Your task to perform on an android device: see creations saved in the google photos Image 0: 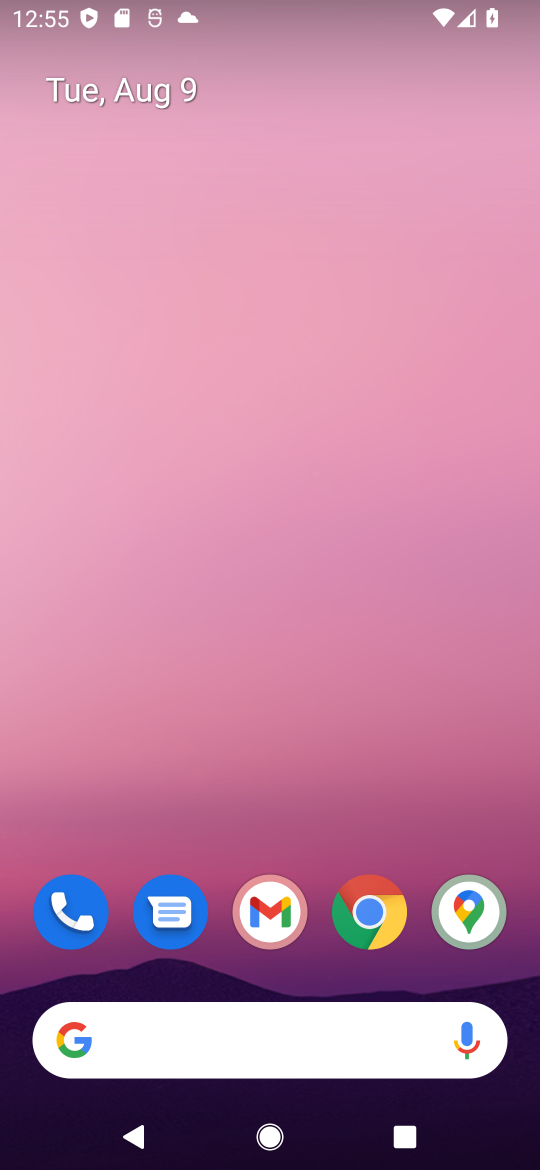
Step 0: drag from (277, 1010) to (229, 164)
Your task to perform on an android device: see creations saved in the google photos Image 1: 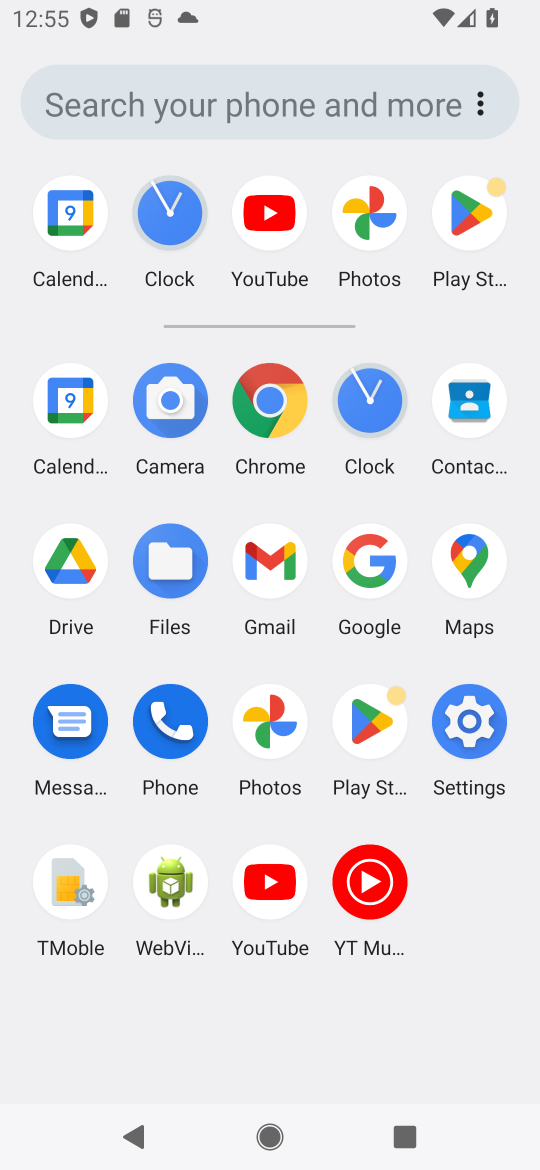
Step 1: click (272, 724)
Your task to perform on an android device: see creations saved in the google photos Image 2: 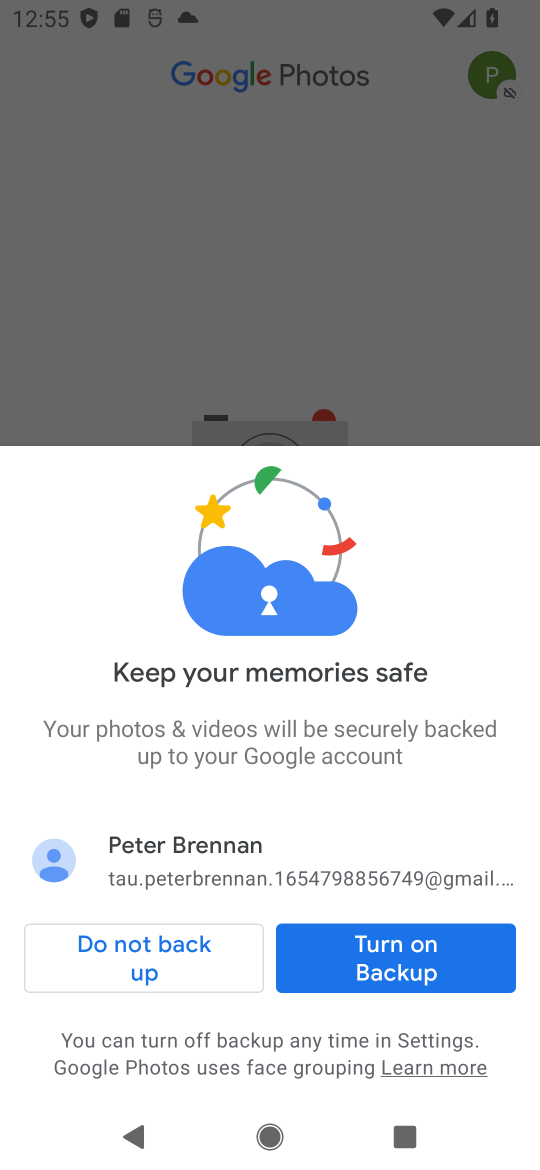
Step 2: click (340, 962)
Your task to perform on an android device: see creations saved in the google photos Image 3: 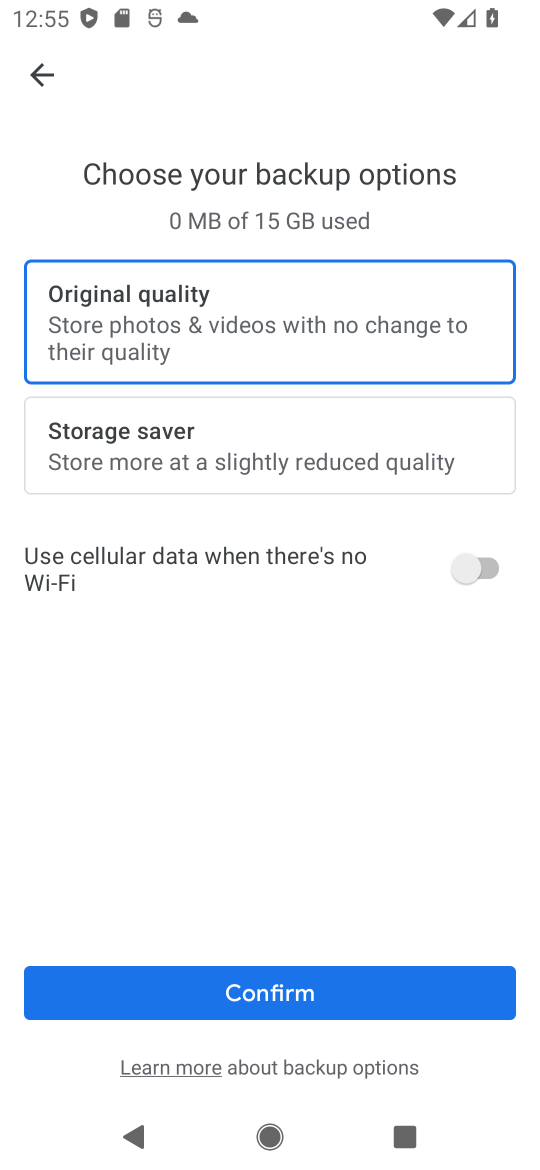
Step 3: click (257, 993)
Your task to perform on an android device: see creations saved in the google photos Image 4: 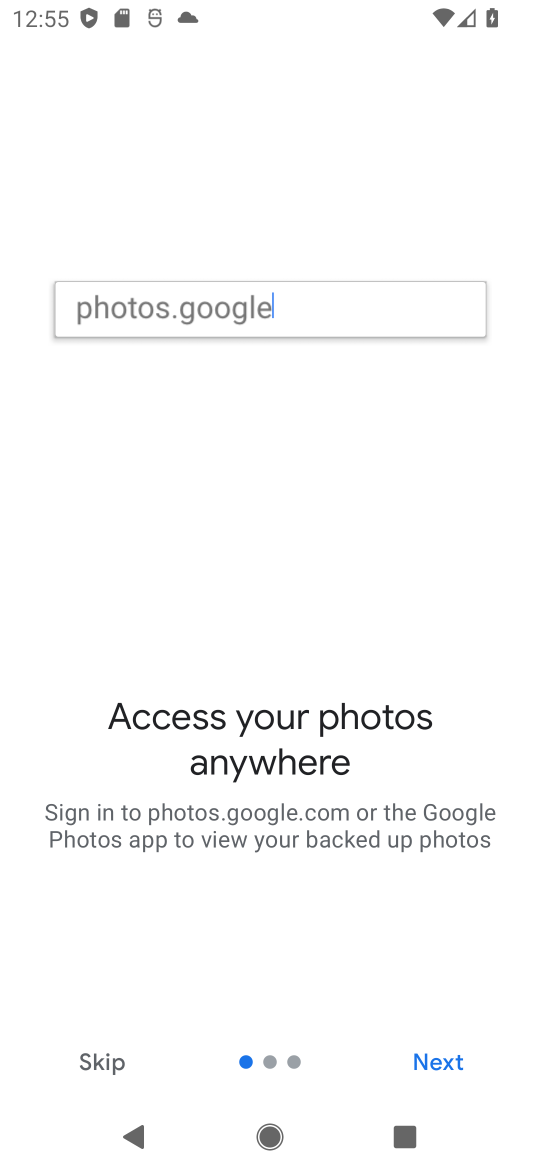
Step 4: click (417, 1069)
Your task to perform on an android device: see creations saved in the google photos Image 5: 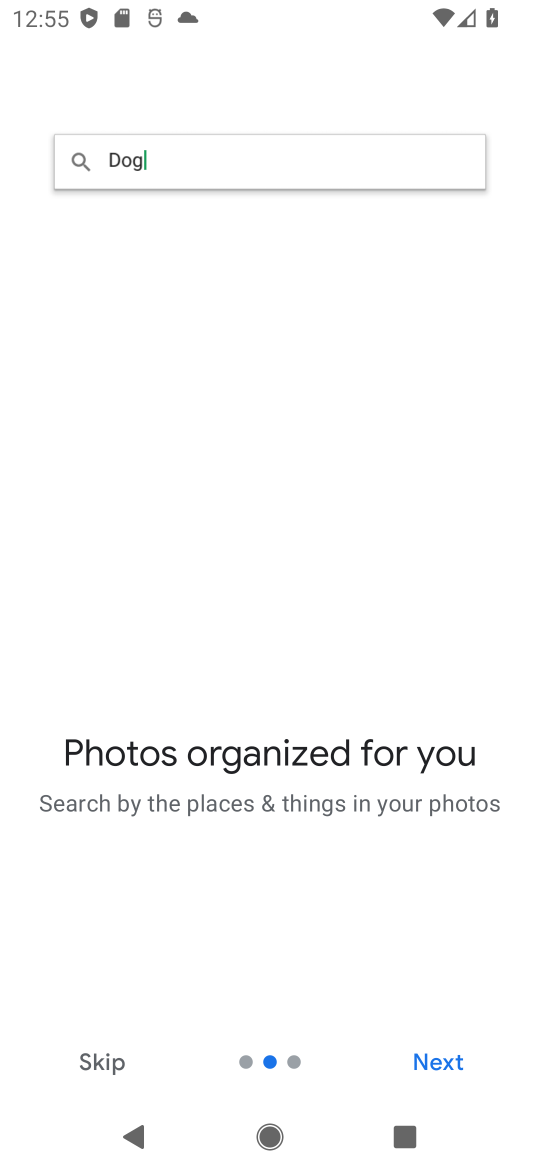
Step 5: click (417, 1069)
Your task to perform on an android device: see creations saved in the google photos Image 6: 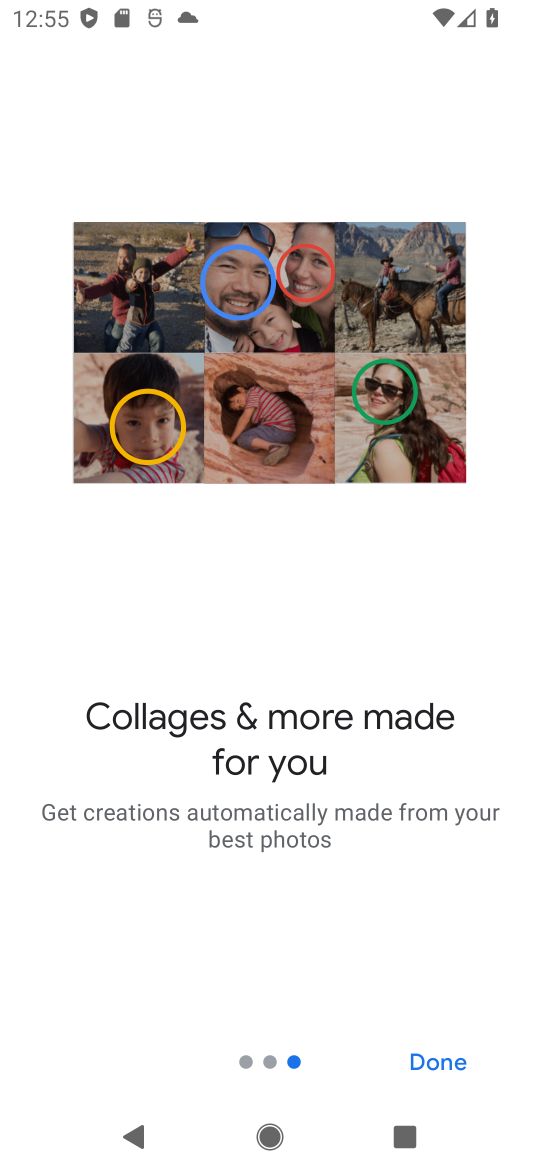
Step 6: click (417, 1069)
Your task to perform on an android device: see creations saved in the google photos Image 7: 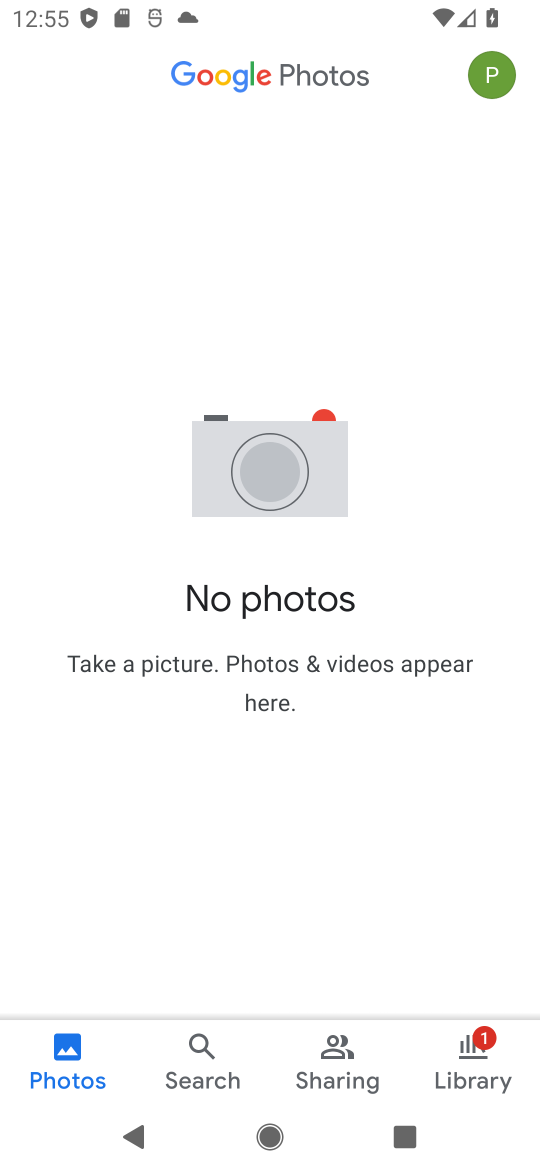
Step 7: click (341, 1053)
Your task to perform on an android device: see creations saved in the google photos Image 8: 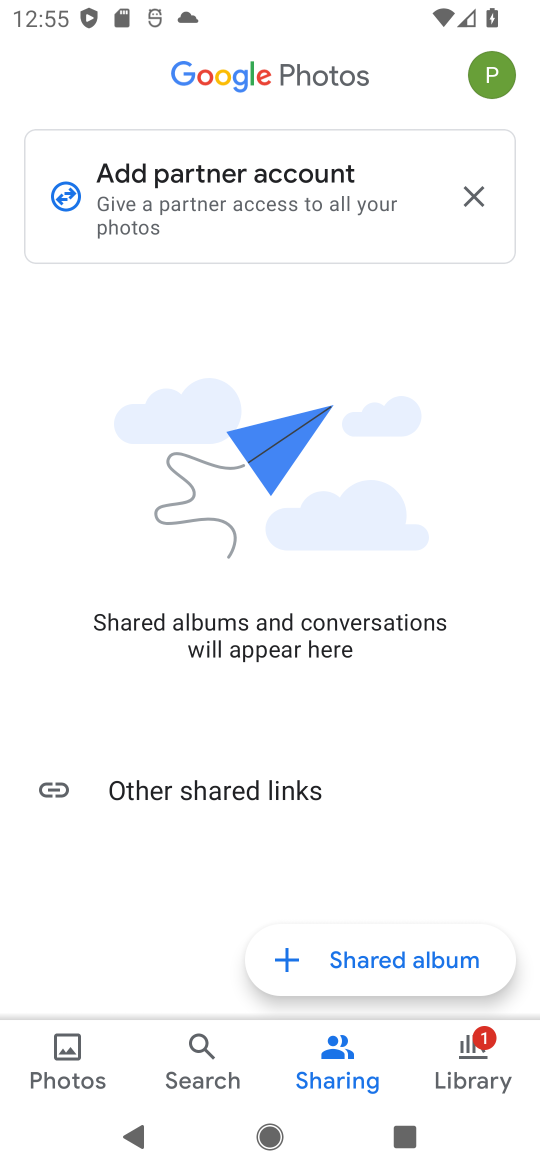
Step 8: click (458, 1065)
Your task to perform on an android device: see creations saved in the google photos Image 9: 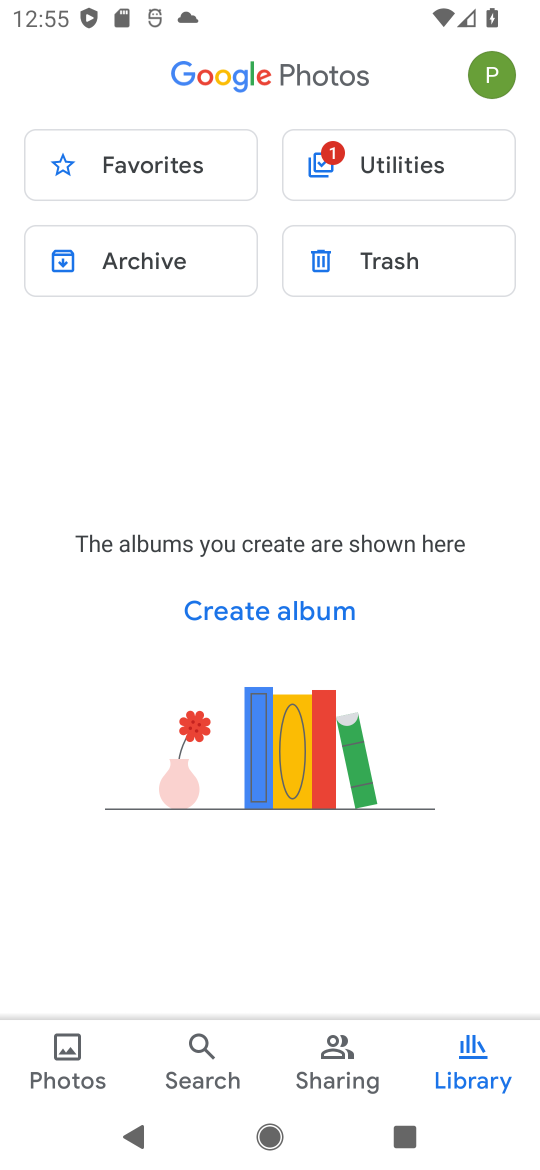
Step 9: task complete